Your task to perform on an android device: move an email to a new category in the gmail app Image 0: 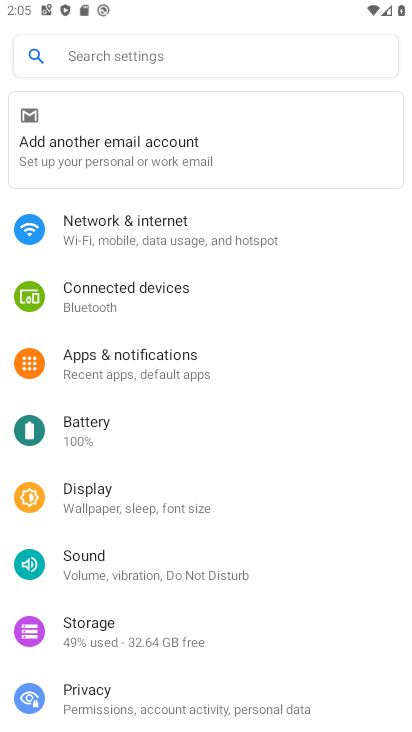
Step 0: press back button
Your task to perform on an android device: move an email to a new category in the gmail app Image 1: 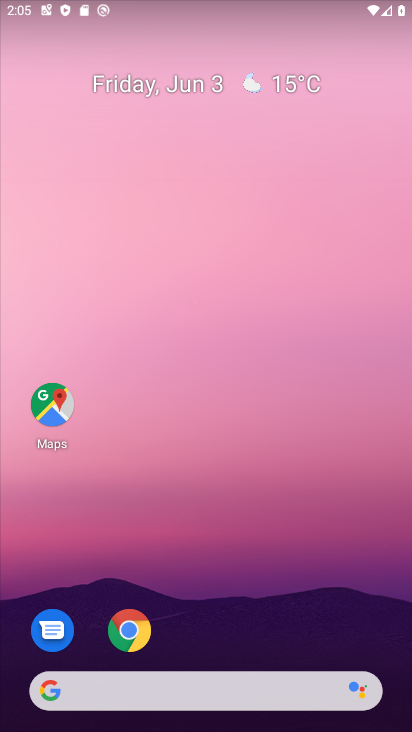
Step 1: drag from (218, 85) to (212, 31)
Your task to perform on an android device: move an email to a new category in the gmail app Image 2: 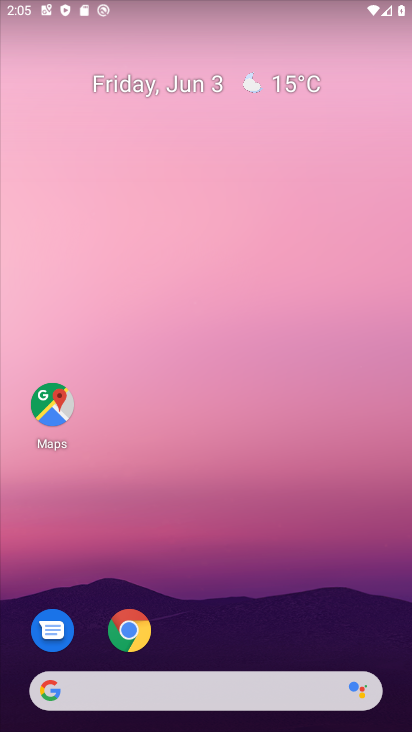
Step 2: drag from (348, 384) to (298, 5)
Your task to perform on an android device: move an email to a new category in the gmail app Image 3: 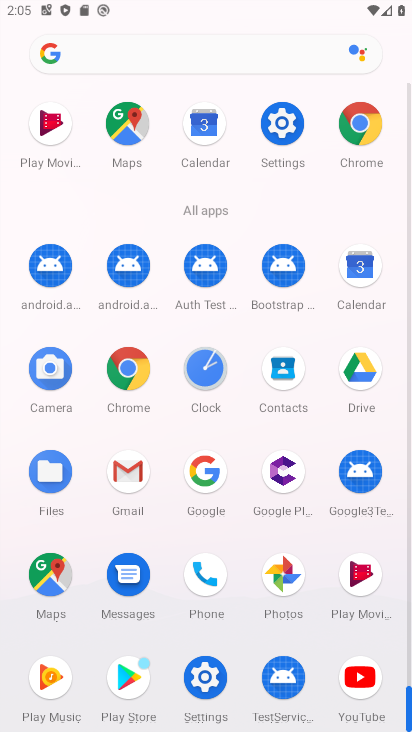
Step 3: drag from (21, 584) to (28, 247)
Your task to perform on an android device: move an email to a new category in the gmail app Image 4: 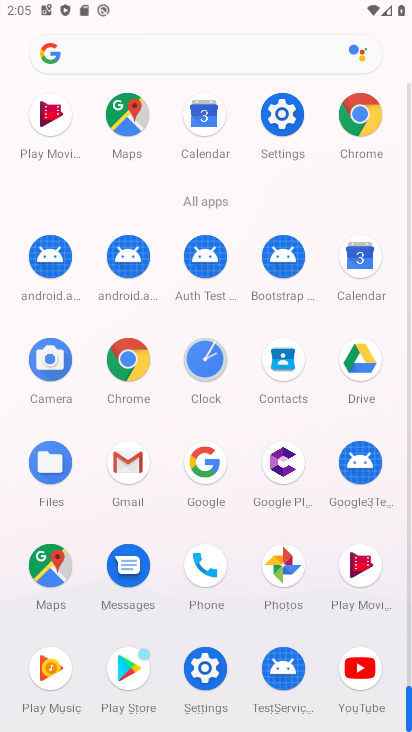
Step 4: click (128, 459)
Your task to perform on an android device: move an email to a new category in the gmail app Image 5: 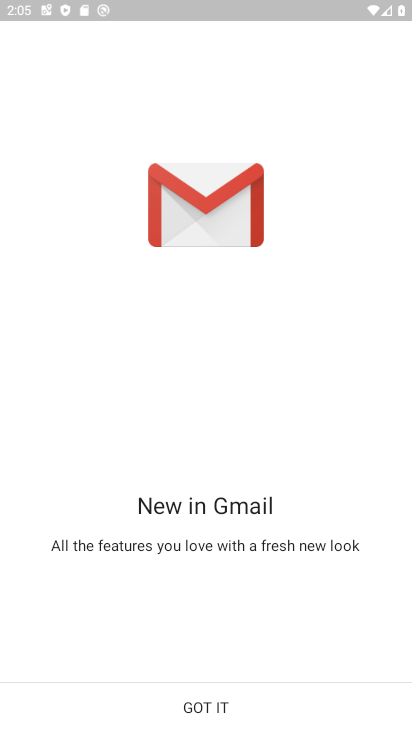
Step 5: click (268, 716)
Your task to perform on an android device: move an email to a new category in the gmail app Image 6: 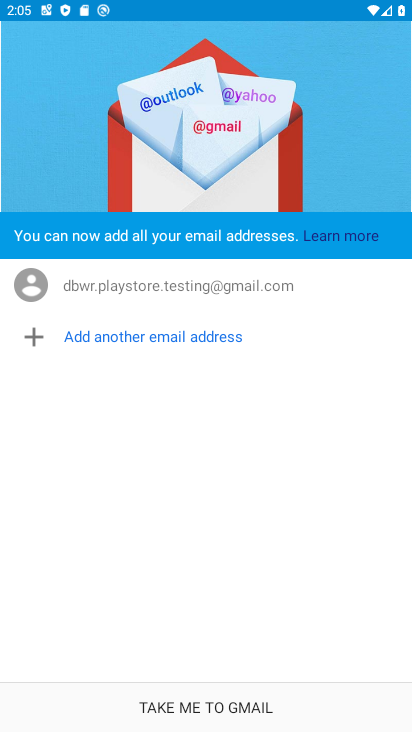
Step 6: click (271, 707)
Your task to perform on an android device: move an email to a new category in the gmail app Image 7: 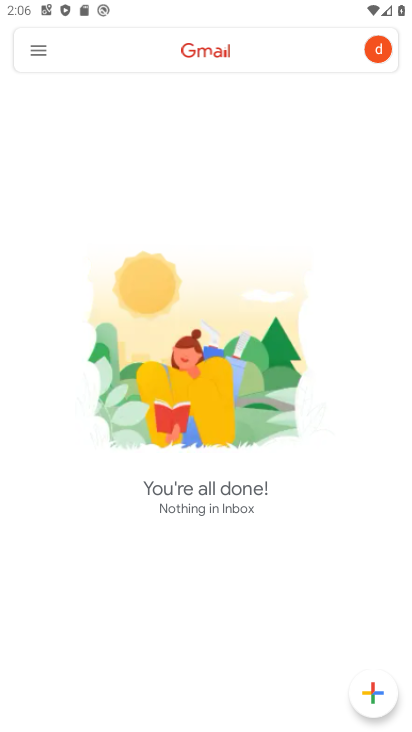
Step 7: click (41, 47)
Your task to perform on an android device: move an email to a new category in the gmail app Image 8: 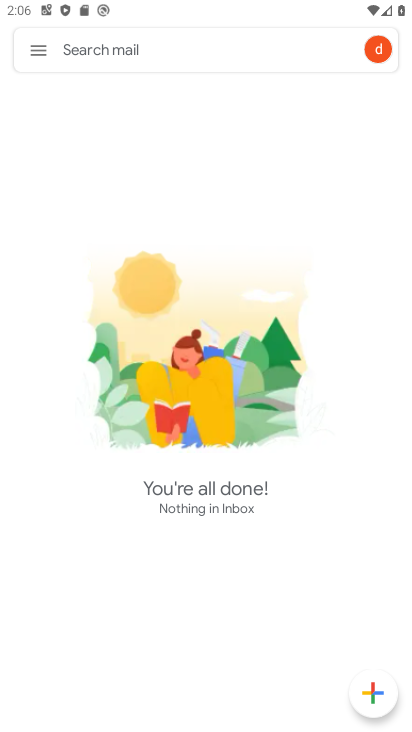
Step 8: click (33, 32)
Your task to perform on an android device: move an email to a new category in the gmail app Image 9: 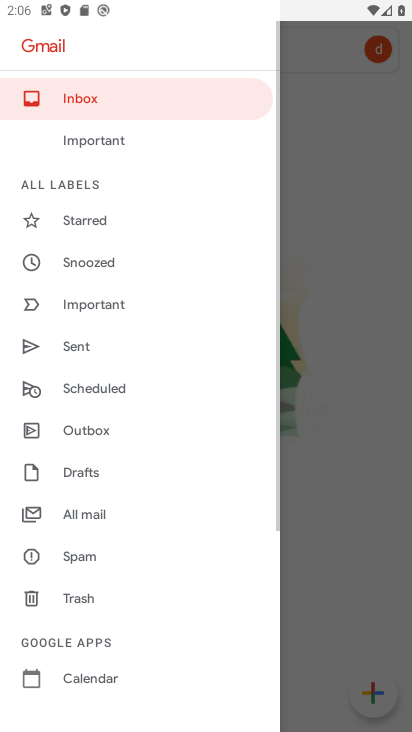
Step 9: drag from (125, 158) to (137, 503)
Your task to perform on an android device: move an email to a new category in the gmail app Image 10: 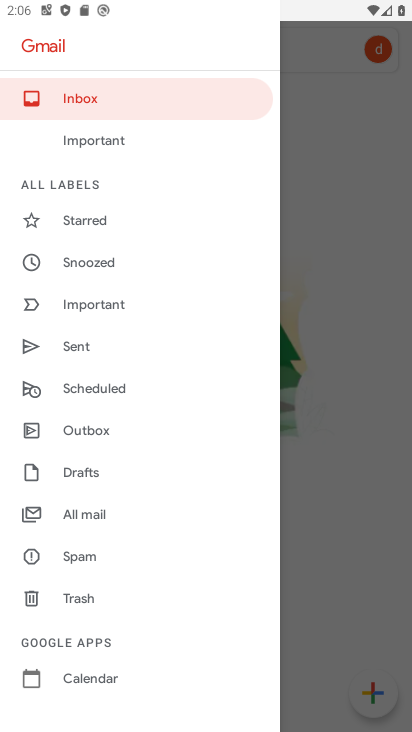
Step 10: click (110, 385)
Your task to perform on an android device: move an email to a new category in the gmail app Image 11: 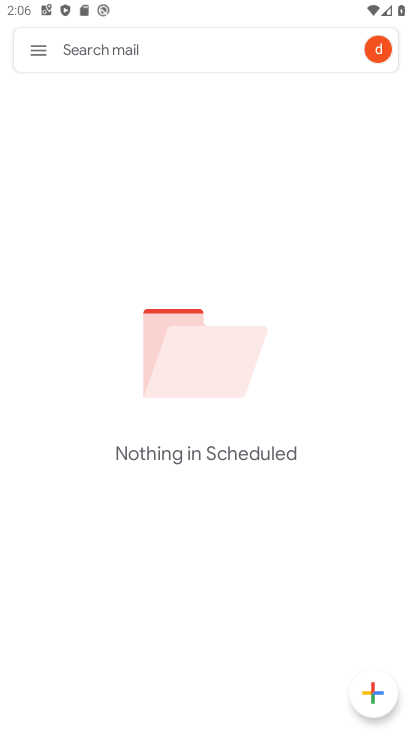
Step 11: click (42, 49)
Your task to perform on an android device: move an email to a new category in the gmail app Image 12: 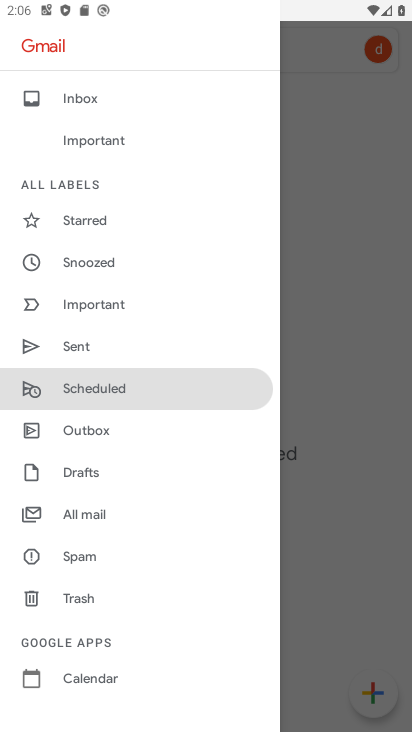
Step 12: click (105, 514)
Your task to perform on an android device: move an email to a new category in the gmail app Image 13: 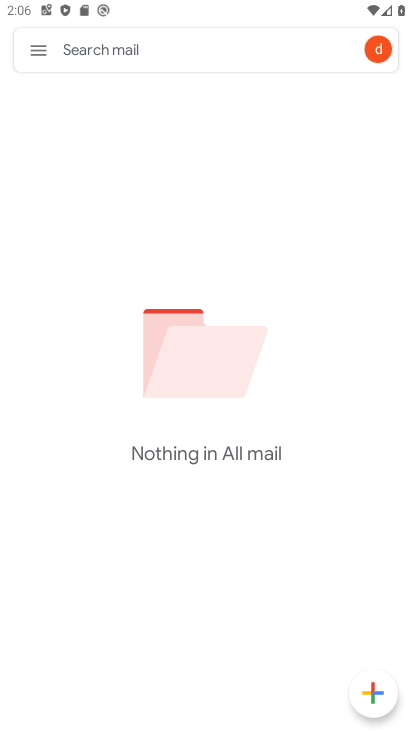
Step 13: task complete